Your task to perform on an android device: Is it going to rain tomorrow? Image 0: 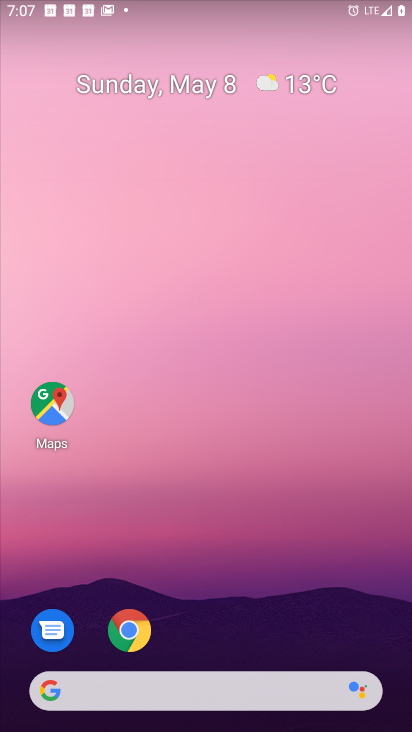
Step 0: click (278, 76)
Your task to perform on an android device: Is it going to rain tomorrow? Image 1: 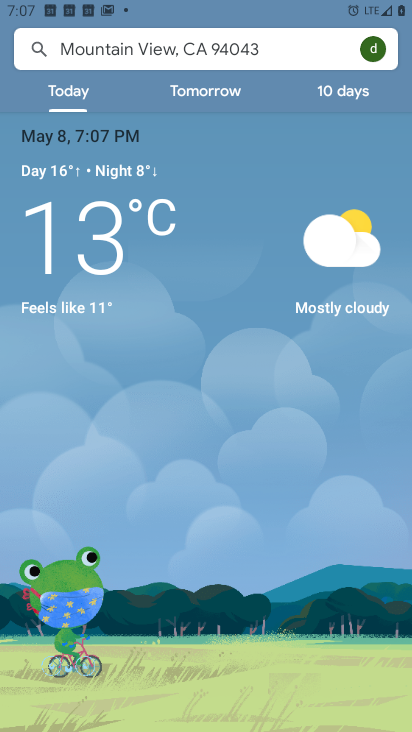
Step 1: click (204, 92)
Your task to perform on an android device: Is it going to rain tomorrow? Image 2: 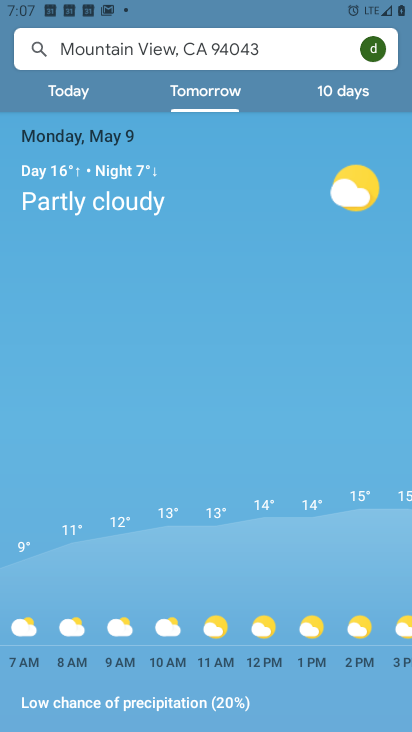
Step 2: task complete